Your task to perform on an android device: turn on translation in the chrome app Image 0: 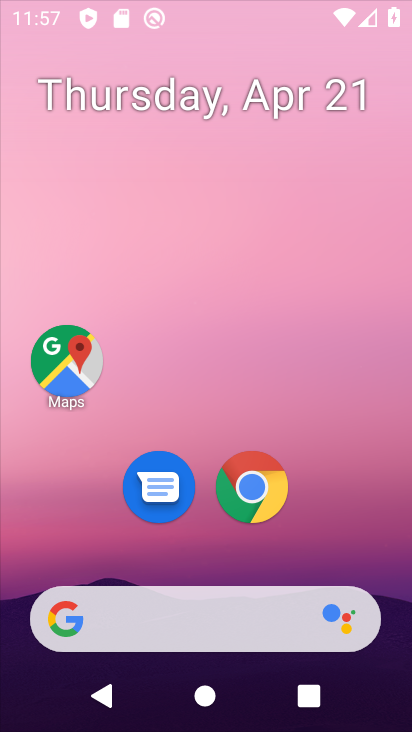
Step 0: drag from (327, 536) to (353, 114)
Your task to perform on an android device: turn on translation in the chrome app Image 1: 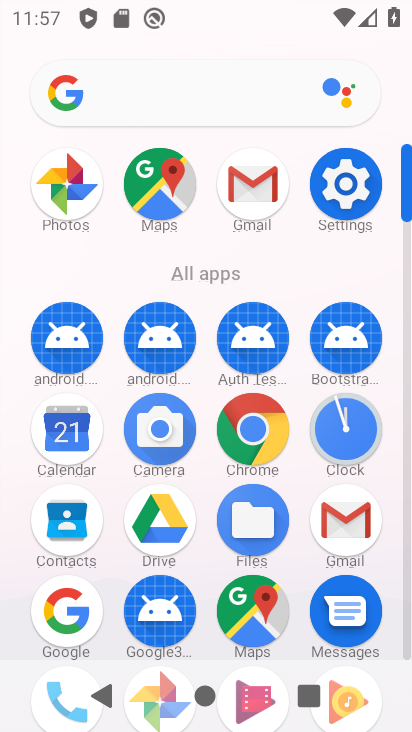
Step 1: click (259, 428)
Your task to perform on an android device: turn on translation in the chrome app Image 2: 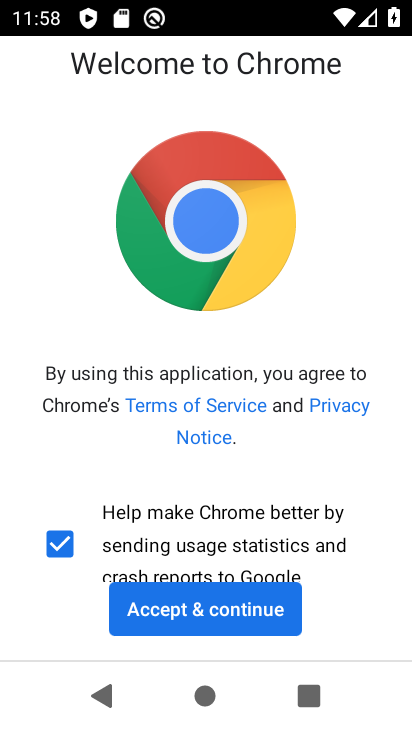
Step 2: click (156, 601)
Your task to perform on an android device: turn on translation in the chrome app Image 3: 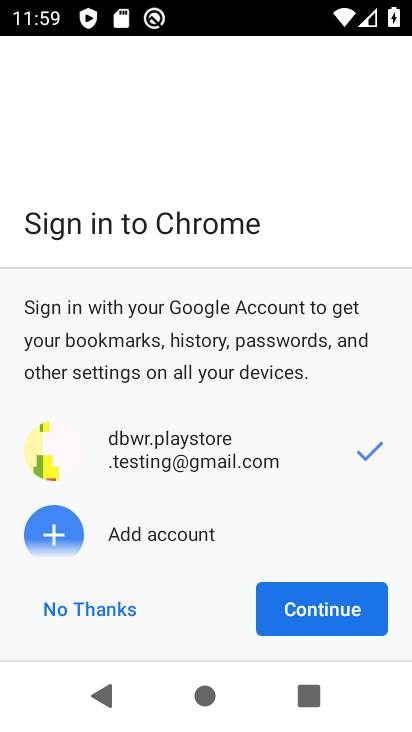
Step 3: click (323, 605)
Your task to perform on an android device: turn on translation in the chrome app Image 4: 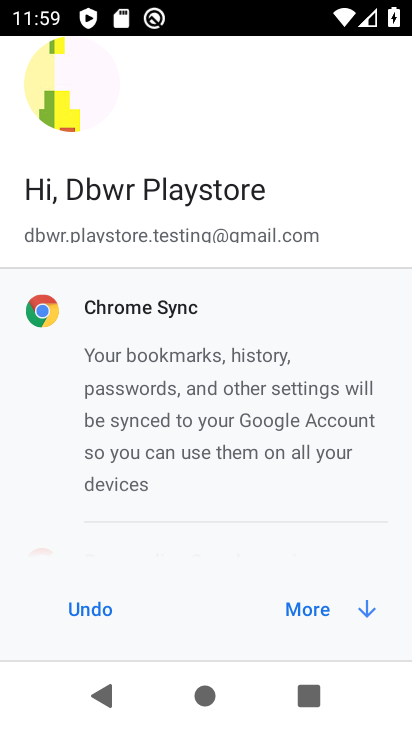
Step 4: click (314, 612)
Your task to perform on an android device: turn on translation in the chrome app Image 5: 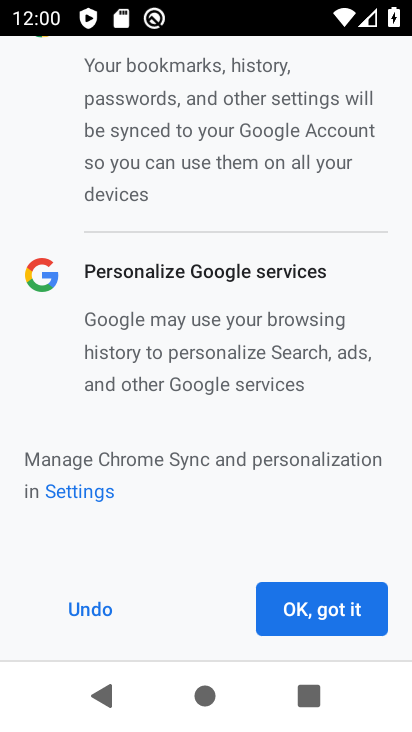
Step 5: press home button
Your task to perform on an android device: turn on translation in the chrome app Image 6: 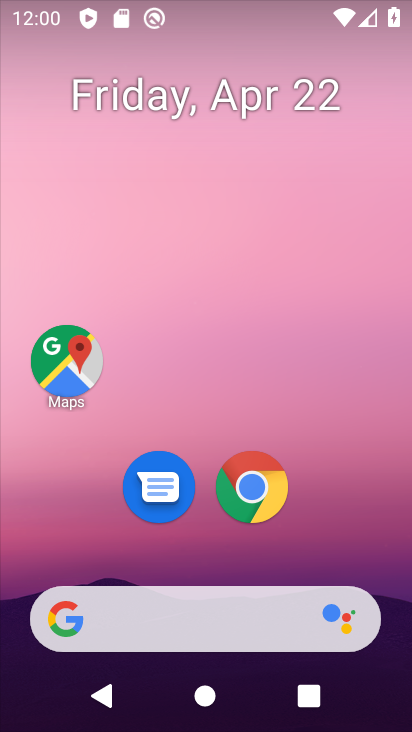
Step 6: click (260, 500)
Your task to perform on an android device: turn on translation in the chrome app Image 7: 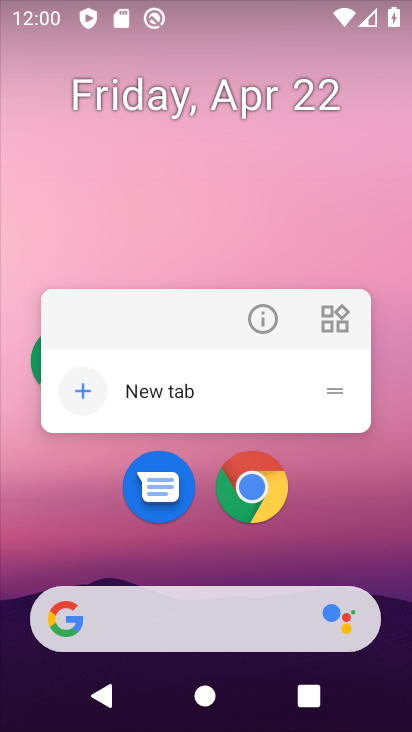
Step 7: drag from (267, 559) to (301, 40)
Your task to perform on an android device: turn on translation in the chrome app Image 8: 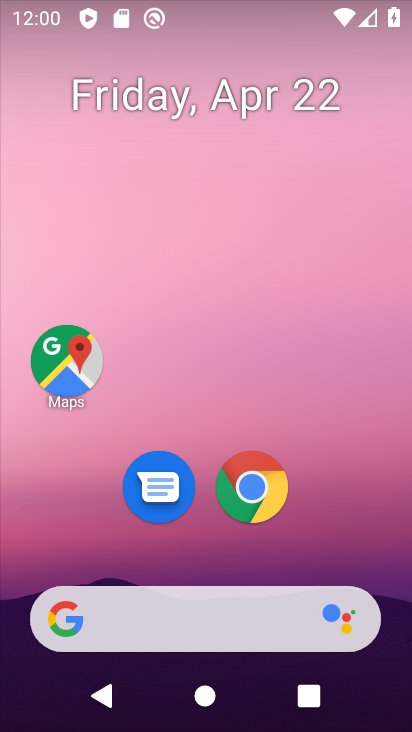
Step 8: drag from (263, 447) to (281, 5)
Your task to perform on an android device: turn on translation in the chrome app Image 9: 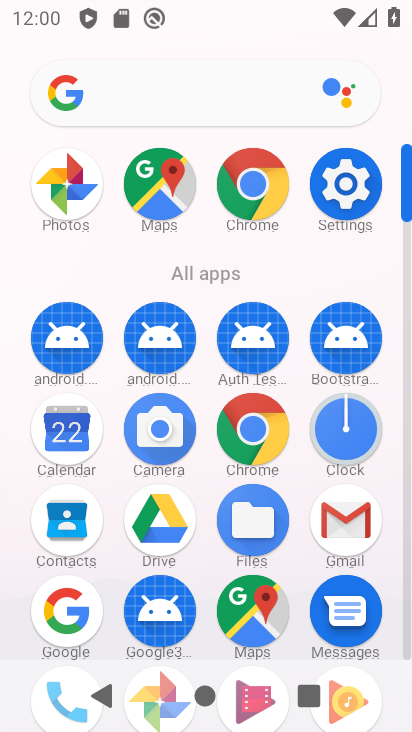
Step 9: click (268, 202)
Your task to perform on an android device: turn on translation in the chrome app Image 10: 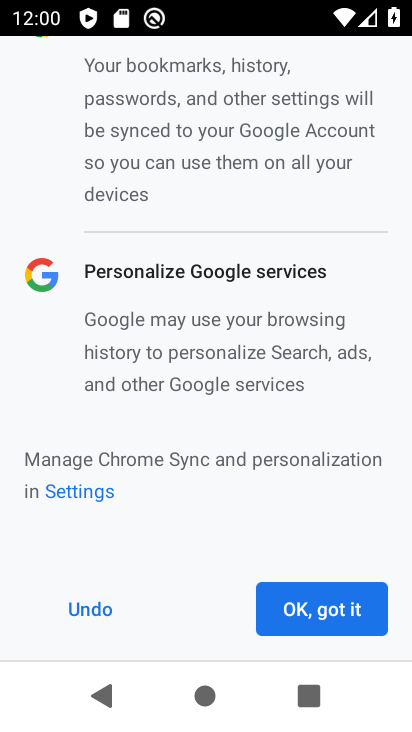
Step 10: click (320, 600)
Your task to perform on an android device: turn on translation in the chrome app Image 11: 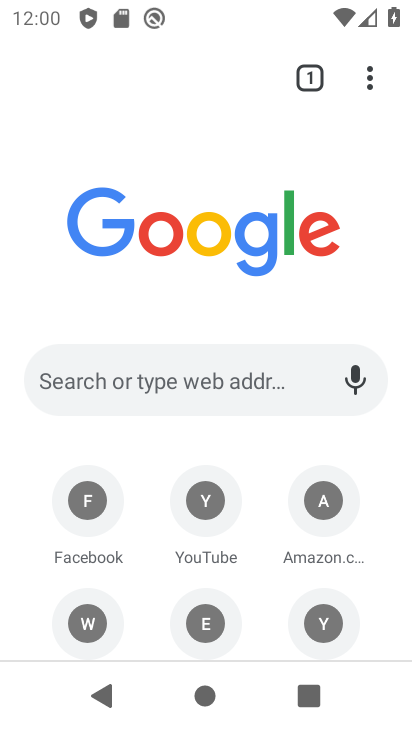
Step 11: click (373, 79)
Your task to perform on an android device: turn on translation in the chrome app Image 12: 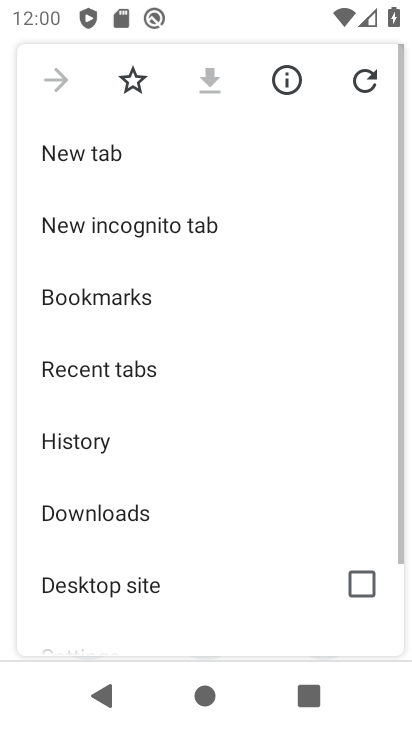
Step 12: drag from (216, 487) to (273, 64)
Your task to perform on an android device: turn on translation in the chrome app Image 13: 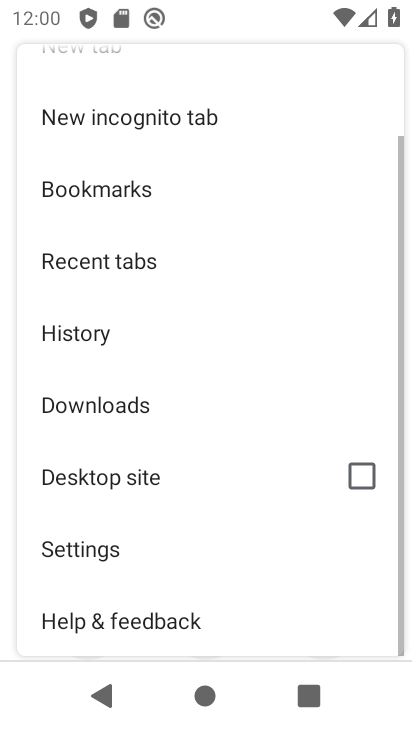
Step 13: click (169, 551)
Your task to perform on an android device: turn on translation in the chrome app Image 14: 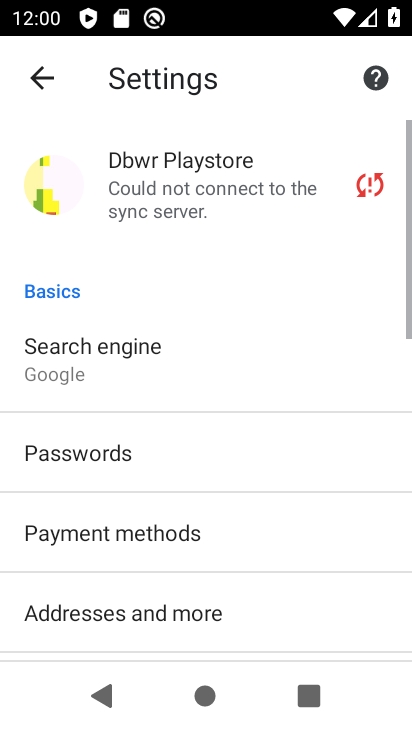
Step 14: drag from (170, 542) to (292, 129)
Your task to perform on an android device: turn on translation in the chrome app Image 15: 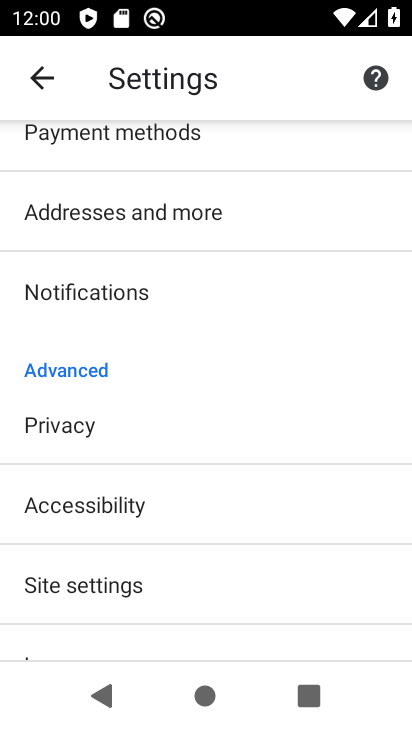
Step 15: drag from (177, 549) to (233, 154)
Your task to perform on an android device: turn on translation in the chrome app Image 16: 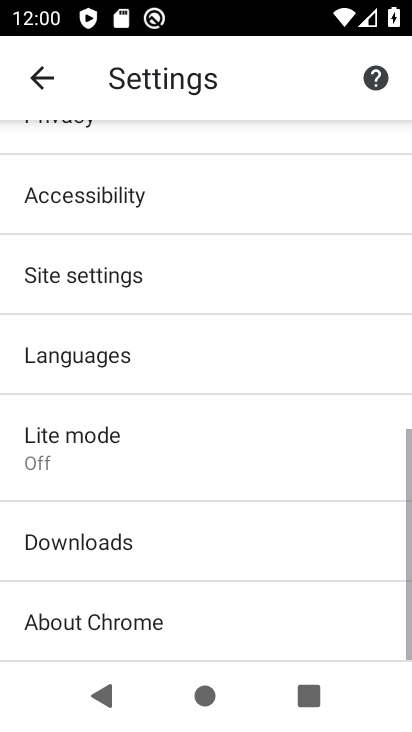
Step 16: drag from (216, 454) to (228, 290)
Your task to perform on an android device: turn on translation in the chrome app Image 17: 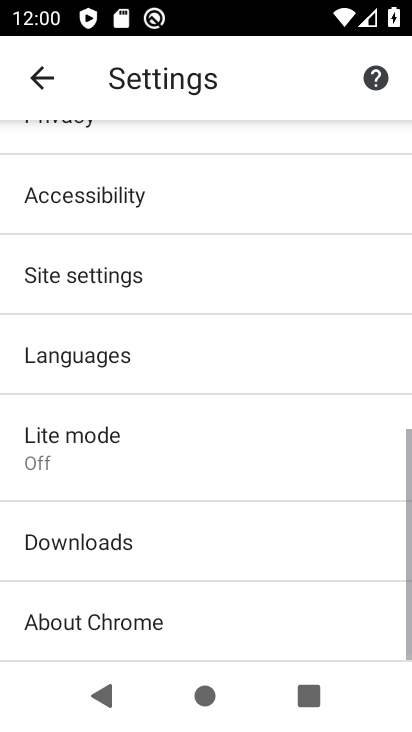
Step 17: click (169, 354)
Your task to perform on an android device: turn on translation in the chrome app Image 18: 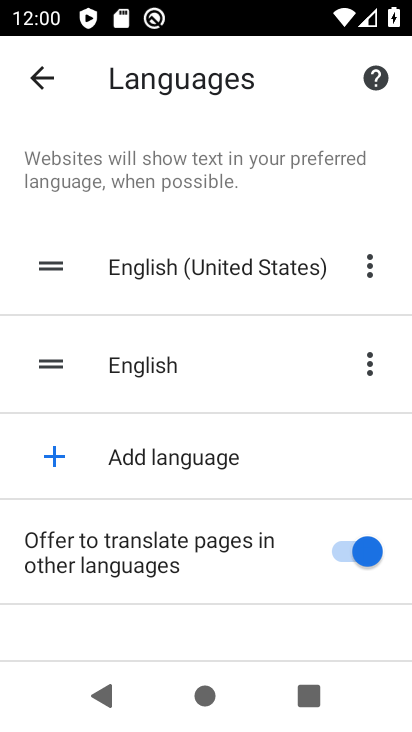
Step 18: task complete